Your task to perform on an android device: Show me productivity apps on the Play Store Image 0: 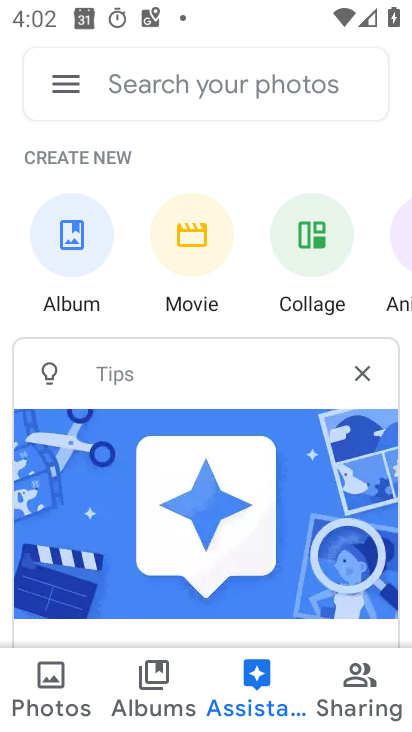
Step 0: press home button
Your task to perform on an android device: Show me productivity apps on the Play Store Image 1: 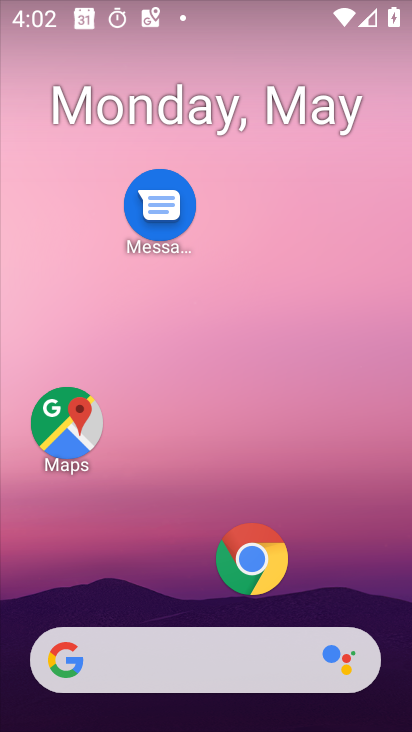
Step 1: drag from (141, 616) to (182, 233)
Your task to perform on an android device: Show me productivity apps on the Play Store Image 2: 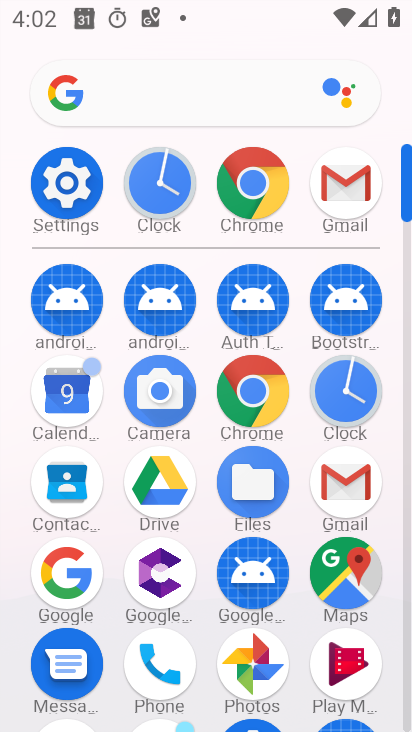
Step 2: drag from (193, 644) to (211, 246)
Your task to perform on an android device: Show me productivity apps on the Play Store Image 3: 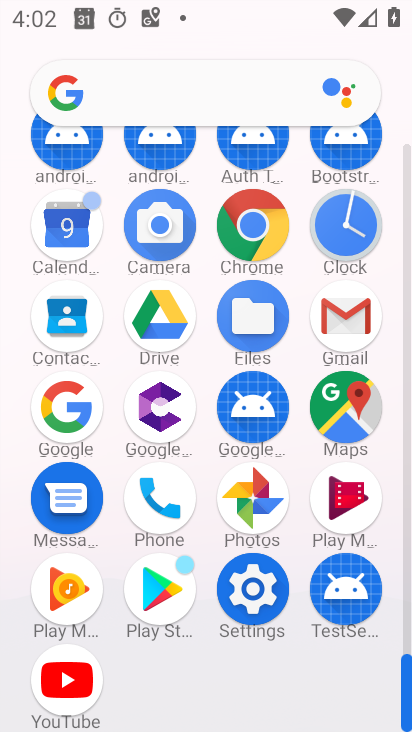
Step 3: click (162, 562)
Your task to perform on an android device: Show me productivity apps on the Play Store Image 4: 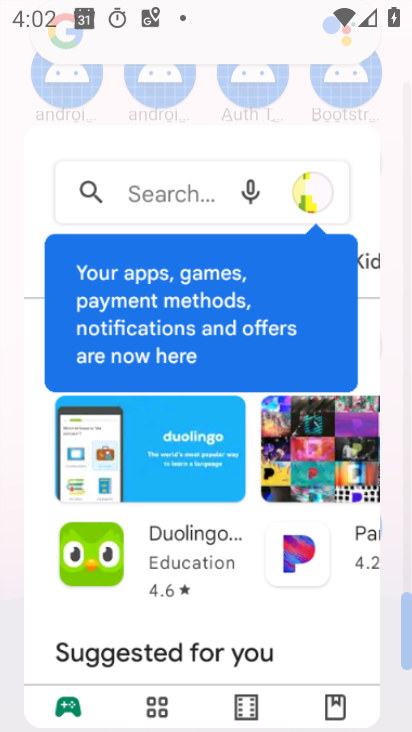
Step 4: click (164, 577)
Your task to perform on an android device: Show me productivity apps on the Play Store Image 5: 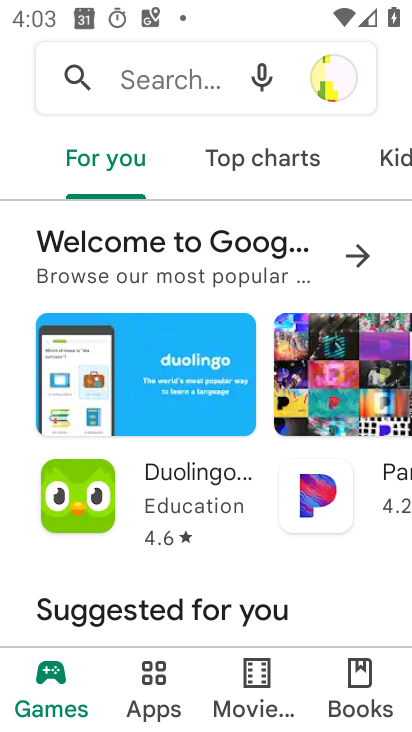
Step 5: click (164, 690)
Your task to perform on an android device: Show me productivity apps on the Play Store Image 6: 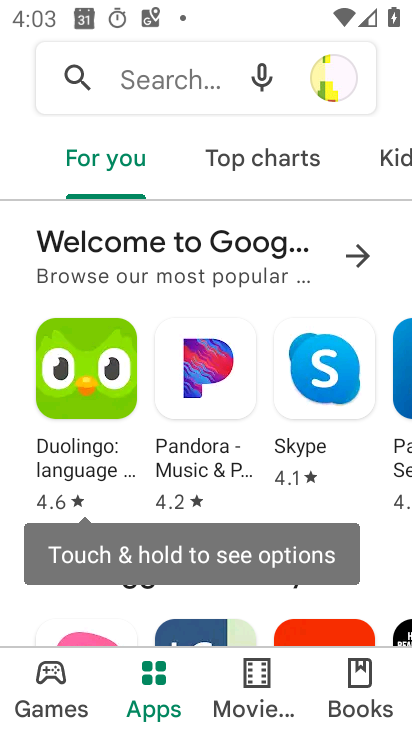
Step 6: drag from (360, 163) to (55, 149)
Your task to perform on an android device: Show me productivity apps on the Play Store Image 7: 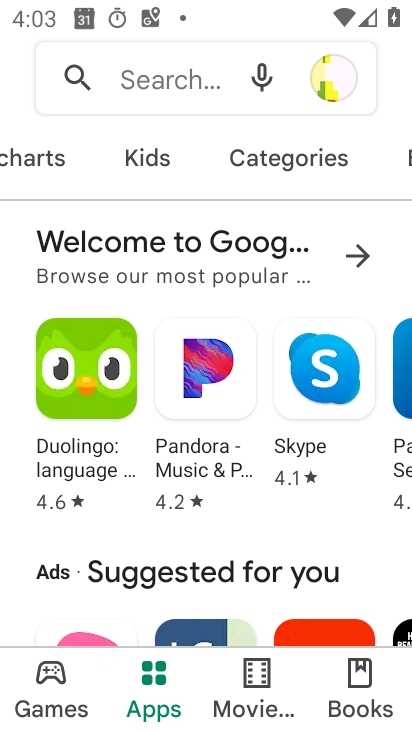
Step 7: drag from (348, 176) to (97, 197)
Your task to perform on an android device: Show me productivity apps on the Play Store Image 8: 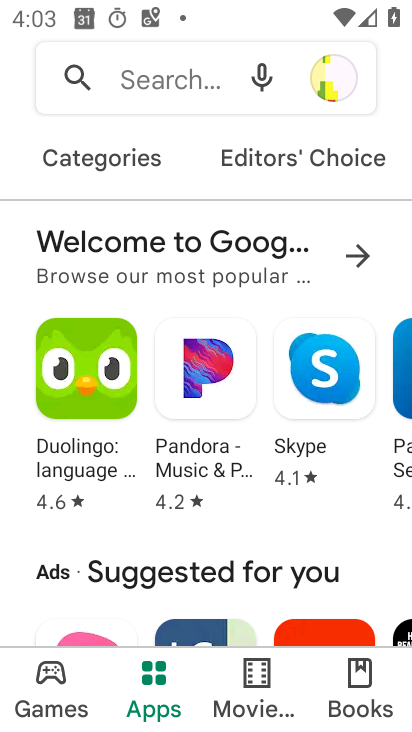
Step 8: click (66, 163)
Your task to perform on an android device: Show me productivity apps on the Play Store Image 9: 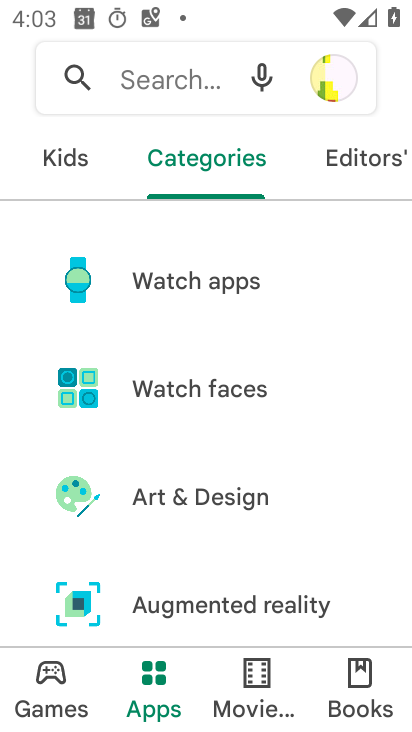
Step 9: drag from (250, 577) to (247, 225)
Your task to perform on an android device: Show me productivity apps on the Play Store Image 10: 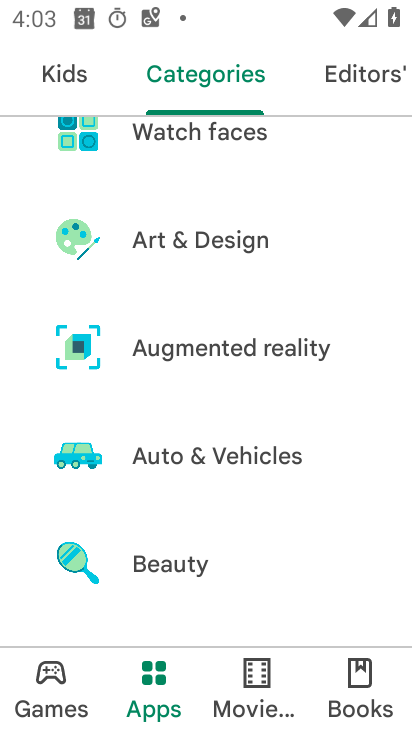
Step 10: drag from (262, 577) to (313, 211)
Your task to perform on an android device: Show me productivity apps on the Play Store Image 11: 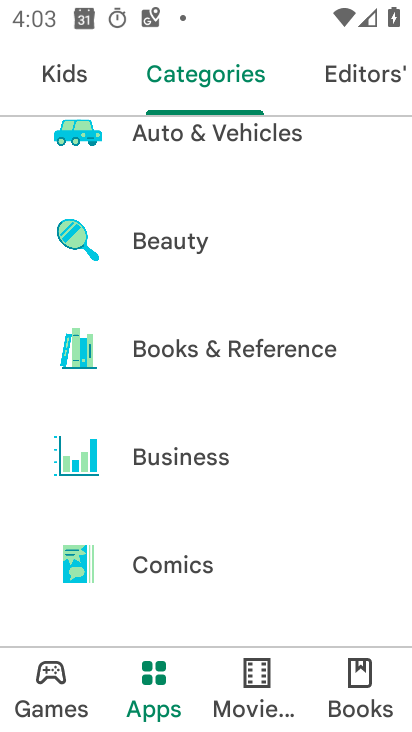
Step 11: drag from (241, 552) to (287, 240)
Your task to perform on an android device: Show me productivity apps on the Play Store Image 12: 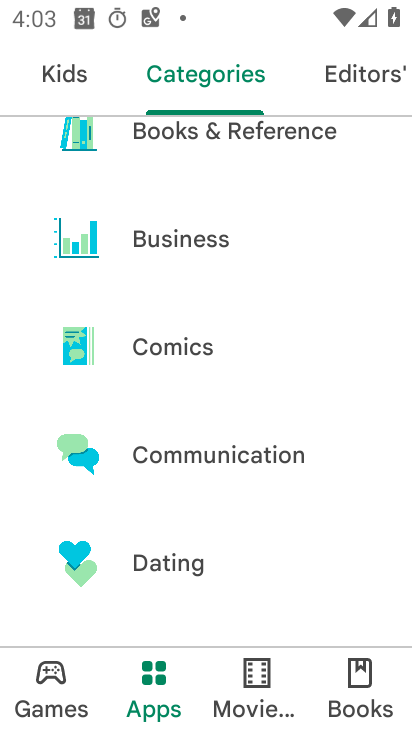
Step 12: drag from (195, 579) to (241, 283)
Your task to perform on an android device: Show me productivity apps on the Play Store Image 13: 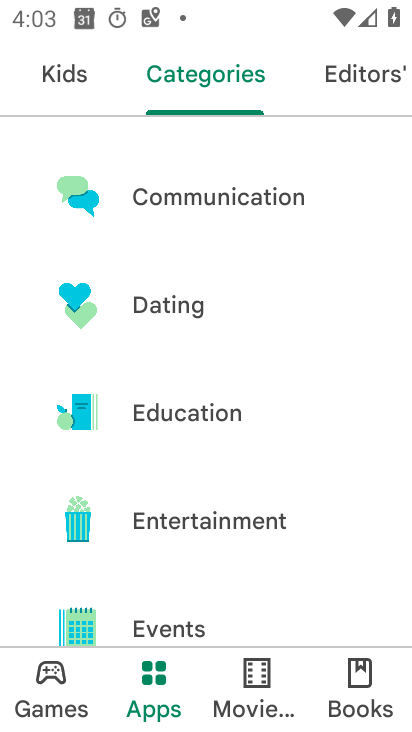
Step 13: drag from (230, 571) to (252, 410)
Your task to perform on an android device: Show me productivity apps on the Play Store Image 14: 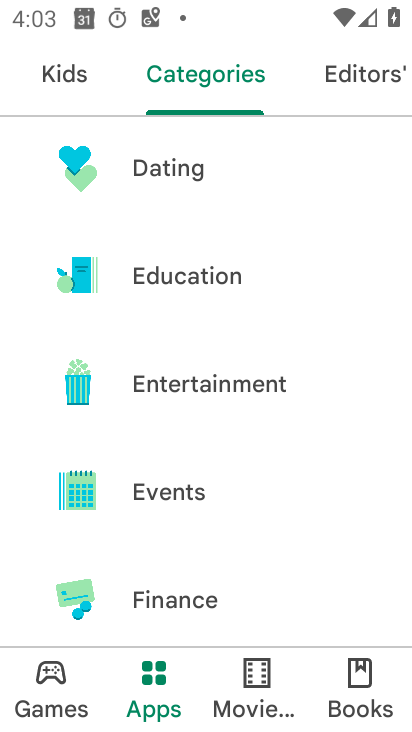
Step 14: drag from (216, 566) to (266, 325)
Your task to perform on an android device: Show me productivity apps on the Play Store Image 15: 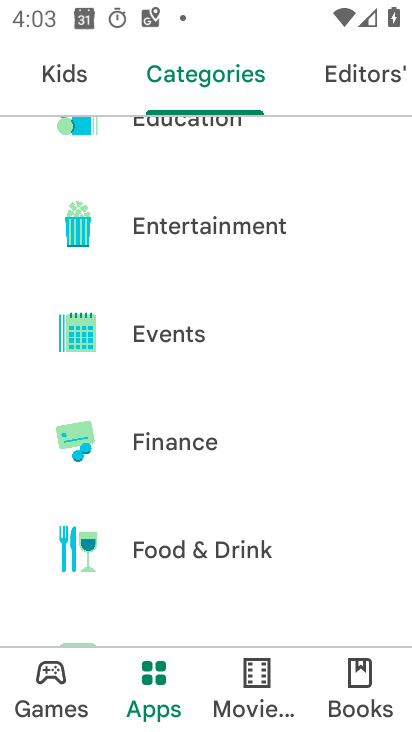
Step 15: drag from (161, 594) to (211, 303)
Your task to perform on an android device: Show me productivity apps on the Play Store Image 16: 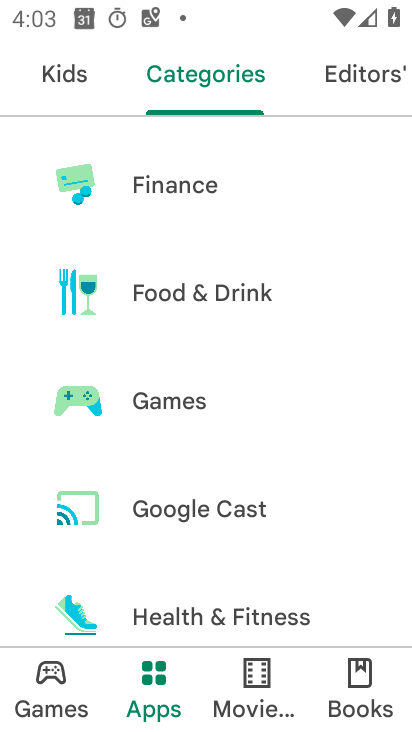
Step 16: drag from (192, 588) to (244, 308)
Your task to perform on an android device: Show me productivity apps on the Play Store Image 17: 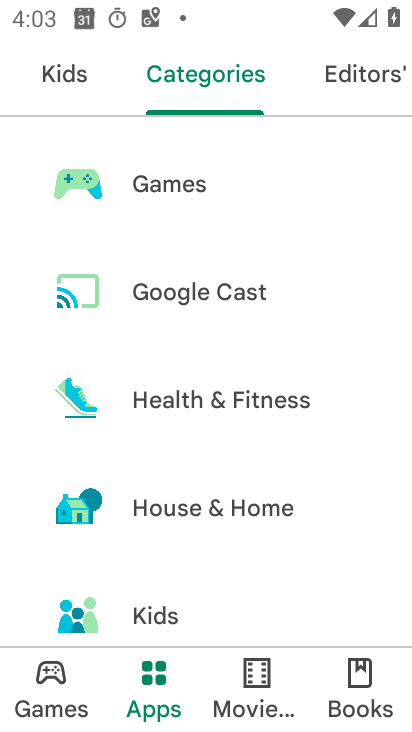
Step 17: drag from (209, 612) to (221, 173)
Your task to perform on an android device: Show me productivity apps on the Play Store Image 18: 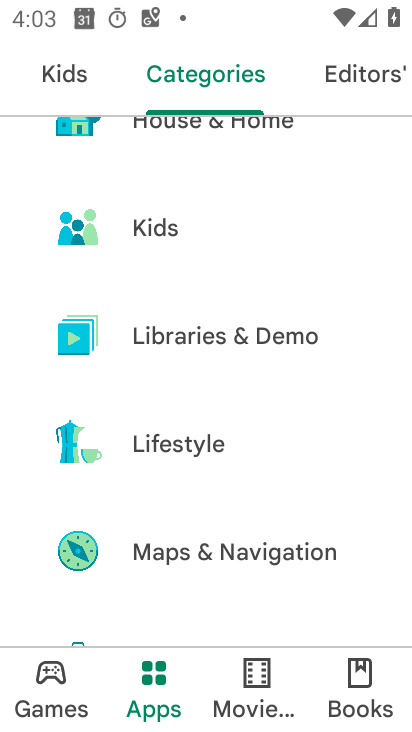
Step 18: drag from (226, 578) to (257, 237)
Your task to perform on an android device: Show me productivity apps on the Play Store Image 19: 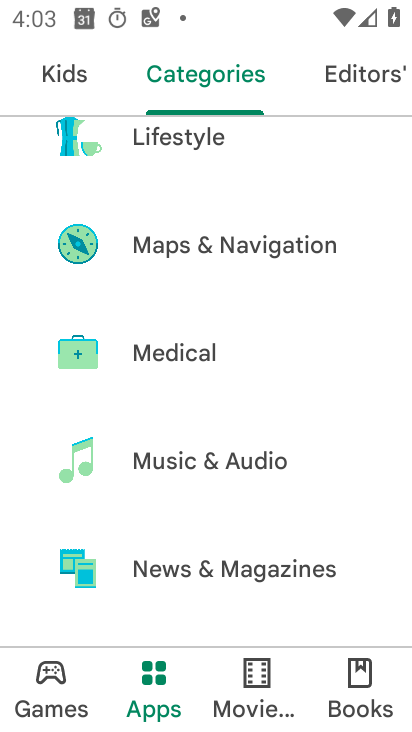
Step 19: drag from (205, 600) to (266, 269)
Your task to perform on an android device: Show me productivity apps on the Play Store Image 20: 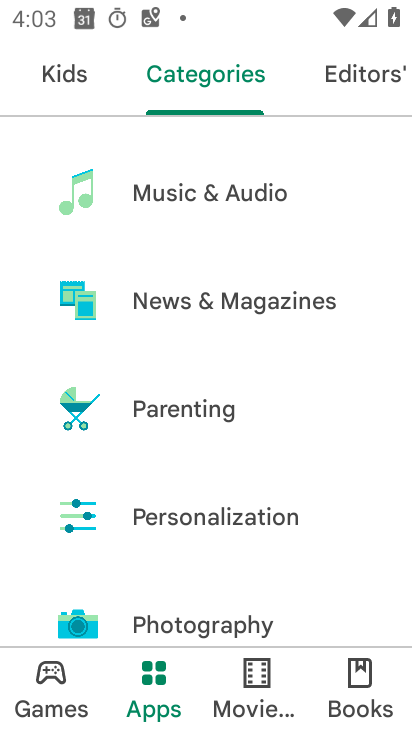
Step 20: drag from (205, 555) to (204, 361)
Your task to perform on an android device: Show me productivity apps on the Play Store Image 21: 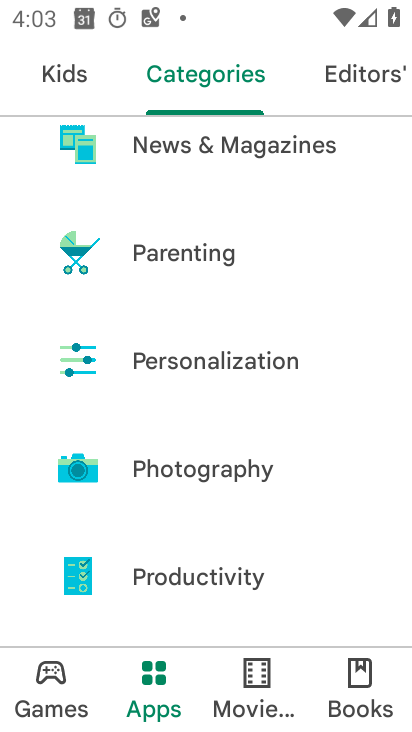
Step 21: click (215, 574)
Your task to perform on an android device: Show me productivity apps on the Play Store Image 22: 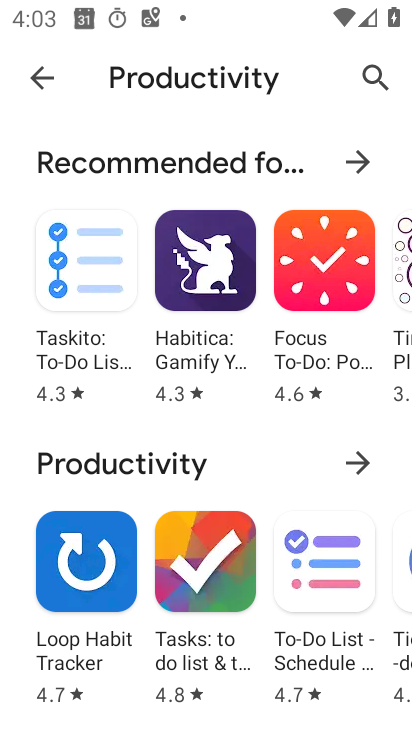
Step 22: task complete